Your task to perform on an android device: Open accessibility settings Image 0: 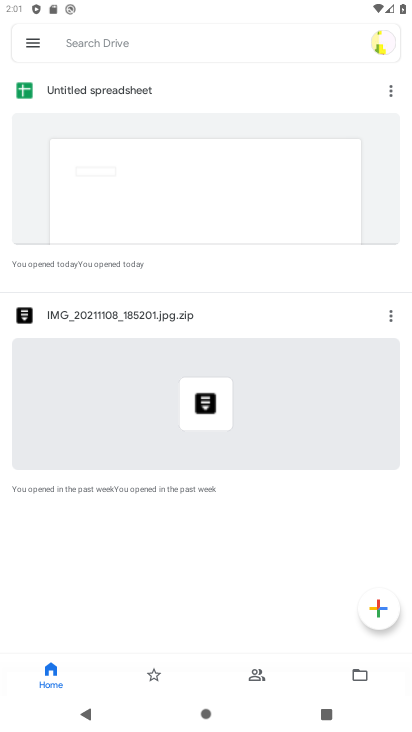
Step 0: press home button
Your task to perform on an android device: Open accessibility settings Image 1: 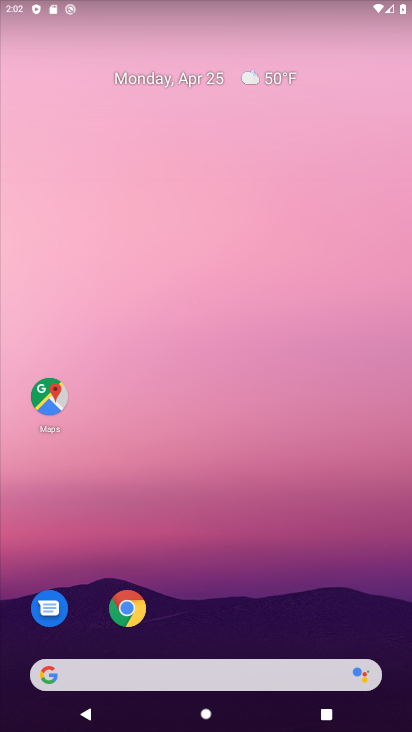
Step 1: drag from (230, 633) to (233, 247)
Your task to perform on an android device: Open accessibility settings Image 2: 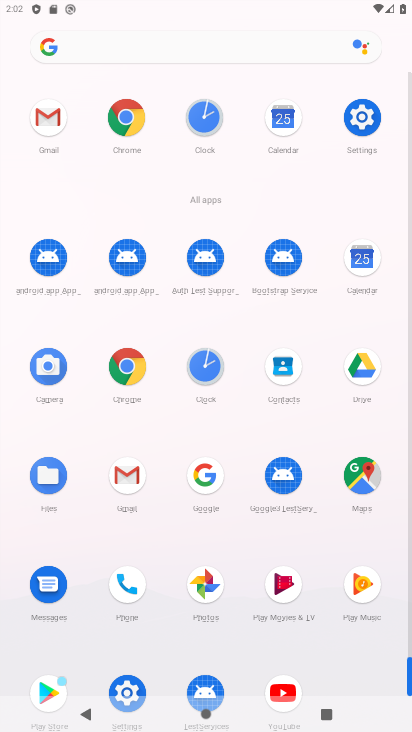
Step 2: click (373, 126)
Your task to perform on an android device: Open accessibility settings Image 3: 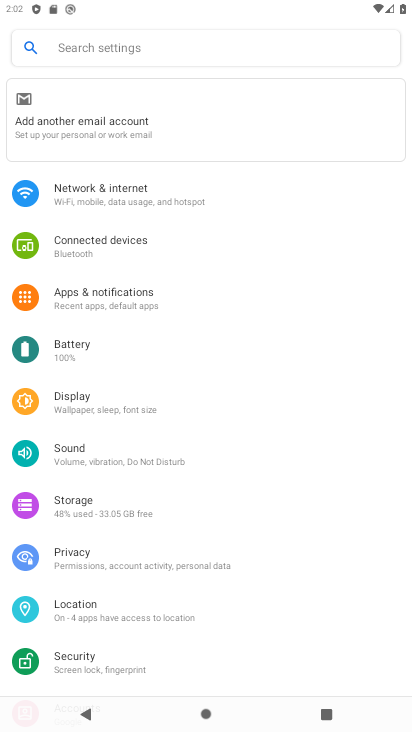
Step 3: drag from (130, 641) to (206, 462)
Your task to perform on an android device: Open accessibility settings Image 4: 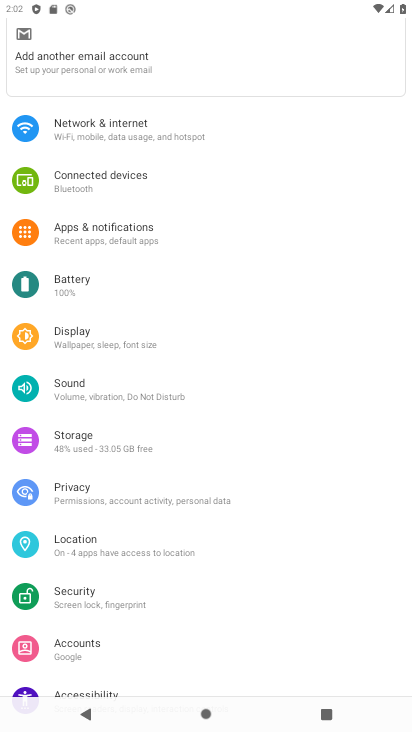
Step 4: drag from (150, 659) to (204, 391)
Your task to perform on an android device: Open accessibility settings Image 5: 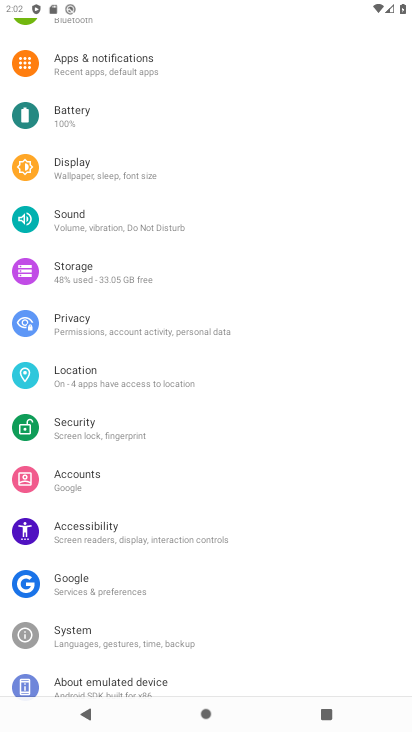
Step 5: click (135, 531)
Your task to perform on an android device: Open accessibility settings Image 6: 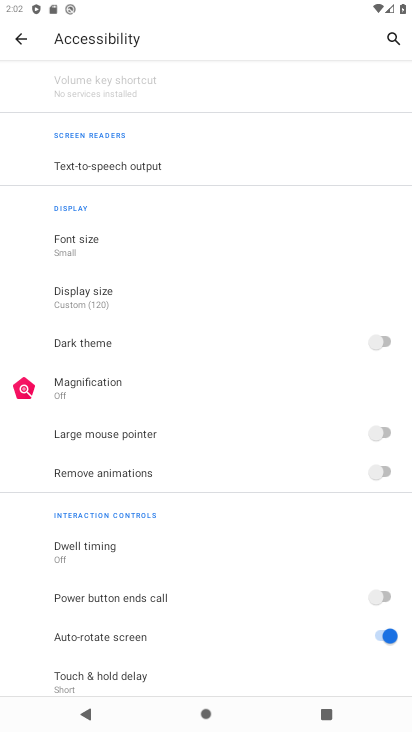
Step 6: task complete